Your task to perform on an android device: Open Google Chrome and click the shortcut for Amazon.com Image 0: 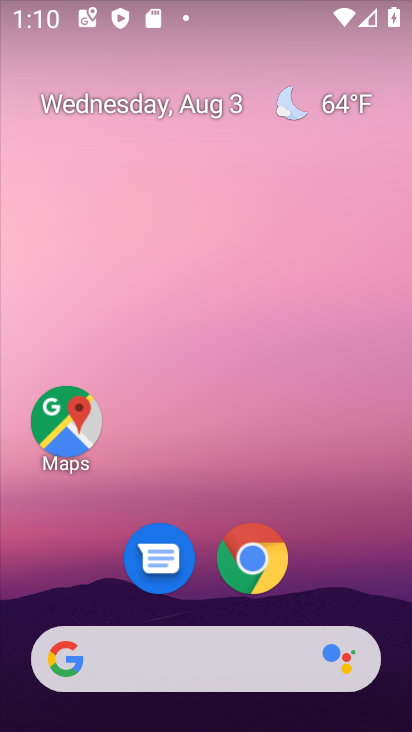
Step 0: click (284, 571)
Your task to perform on an android device: Open Google Chrome and click the shortcut for Amazon.com Image 1: 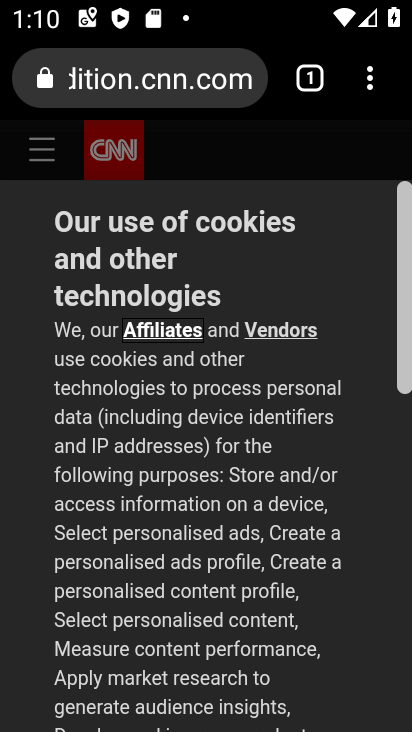
Step 1: click (304, 84)
Your task to perform on an android device: Open Google Chrome and click the shortcut for Amazon.com Image 2: 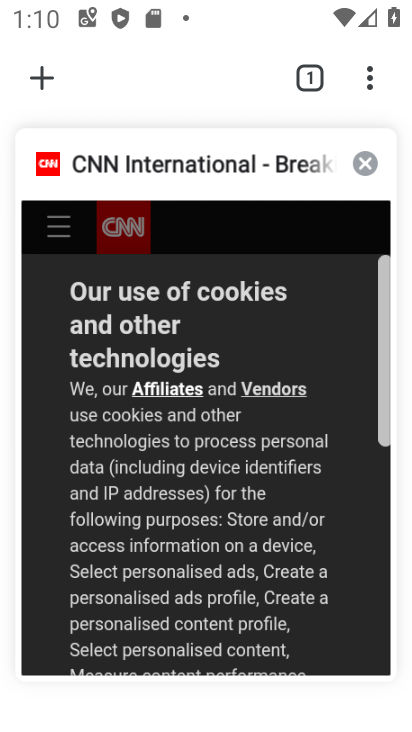
Step 2: click (369, 159)
Your task to perform on an android device: Open Google Chrome and click the shortcut for Amazon.com Image 3: 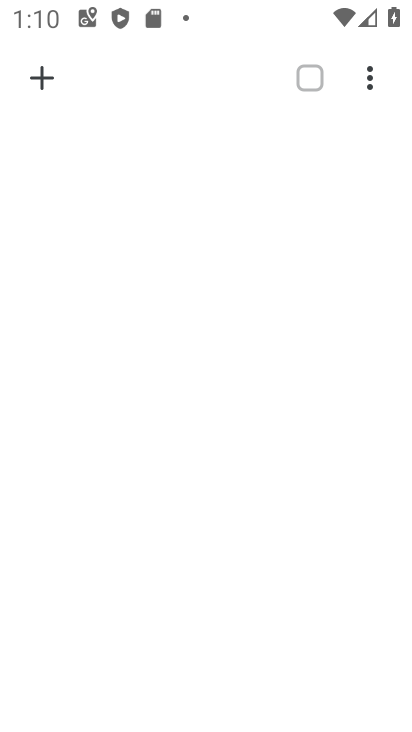
Step 3: click (49, 73)
Your task to perform on an android device: Open Google Chrome and click the shortcut for Amazon.com Image 4: 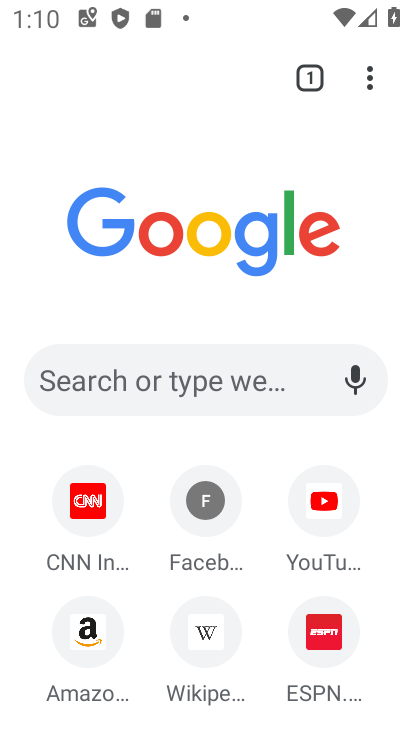
Step 4: click (73, 627)
Your task to perform on an android device: Open Google Chrome and click the shortcut for Amazon.com Image 5: 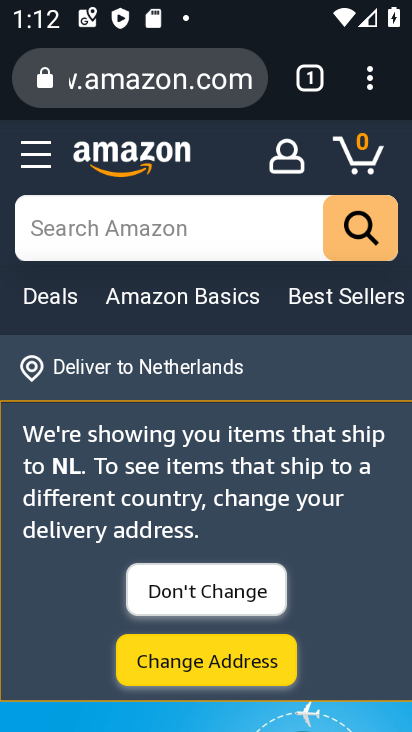
Step 5: task complete